Your task to perform on an android device: allow cookies in the chrome app Image 0: 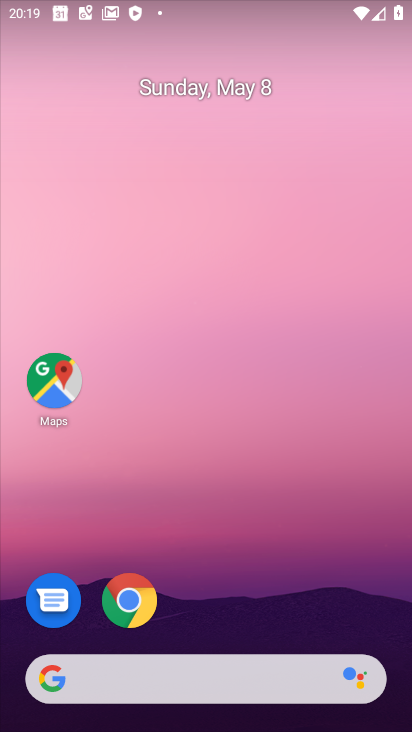
Step 0: drag from (296, 716) to (369, 239)
Your task to perform on an android device: allow cookies in the chrome app Image 1: 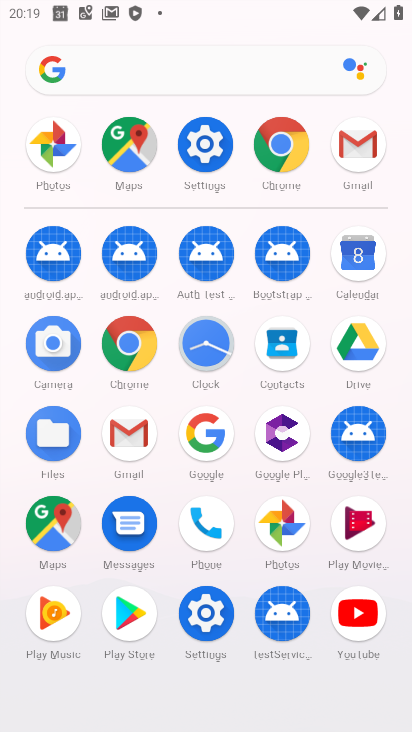
Step 1: click (282, 147)
Your task to perform on an android device: allow cookies in the chrome app Image 2: 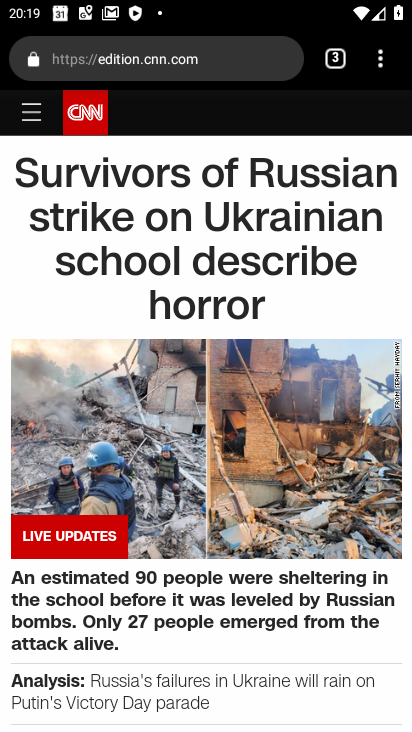
Step 2: click (364, 88)
Your task to perform on an android device: allow cookies in the chrome app Image 3: 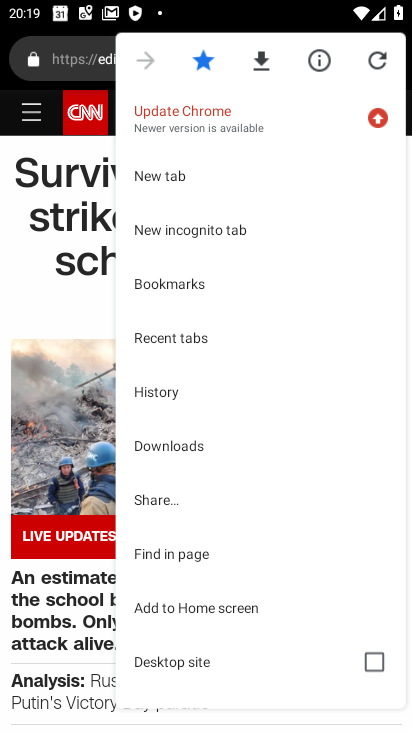
Step 3: drag from (187, 647) to (240, 526)
Your task to perform on an android device: allow cookies in the chrome app Image 4: 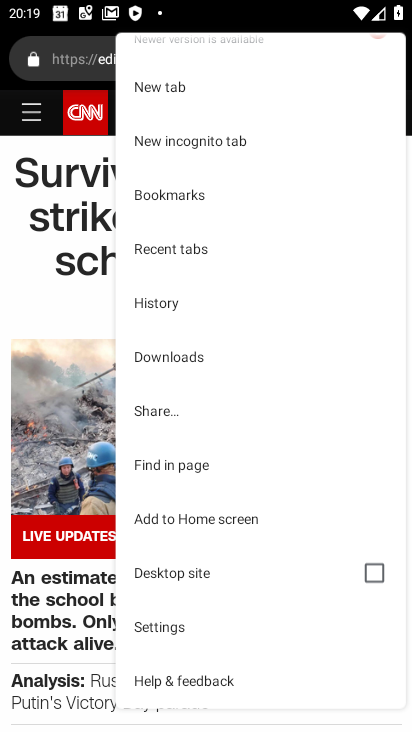
Step 4: click (187, 629)
Your task to perform on an android device: allow cookies in the chrome app Image 5: 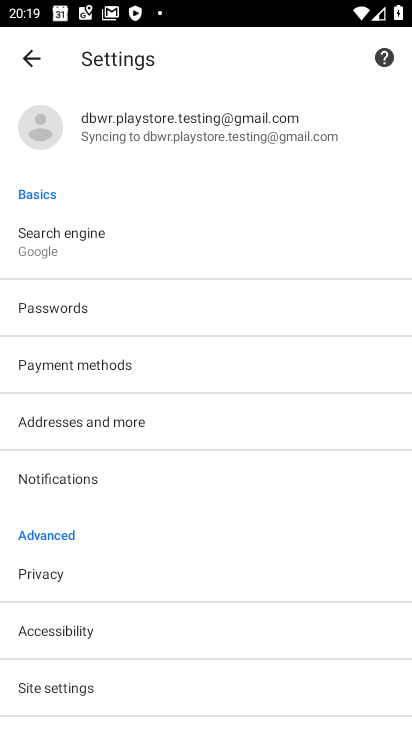
Step 5: drag from (126, 667) to (189, 550)
Your task to perform on an android device: allow cookies in the chrome app Image 6: 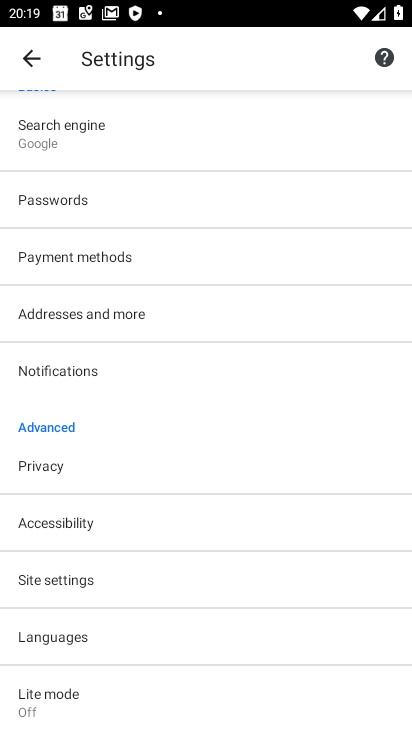
Step 6: click (109, 582)
Your task to perform on an android device: allow cookies in the chrome app Image 7: 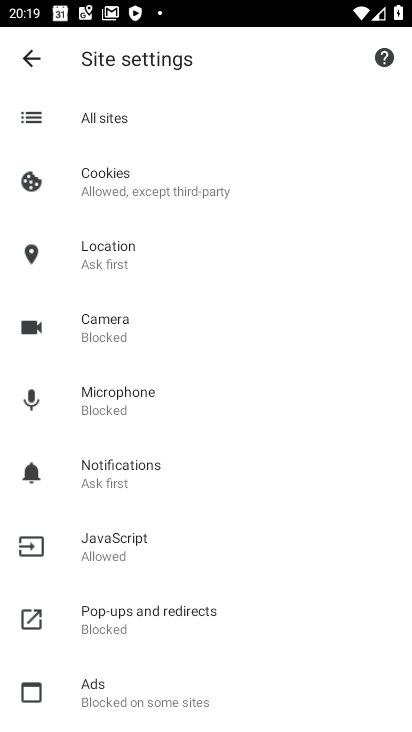
Step 7: click (152, 181)
Your task to perform on an android device: allow cookies in the chrome app Image 8: 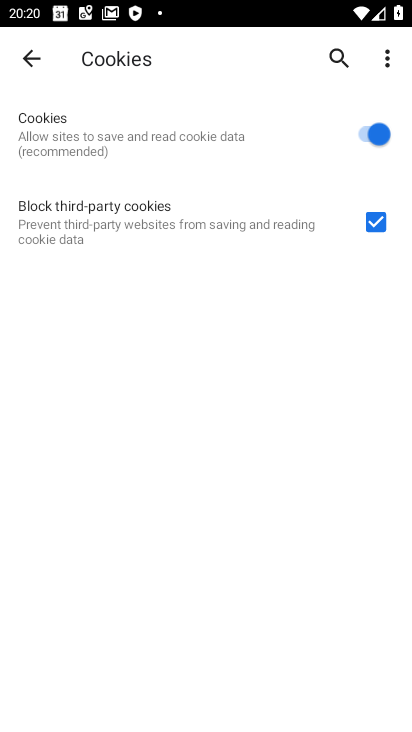
Step 8: click (81, 132)
Your task to perform on an android device: allow cookies in the chrome app Image 9: 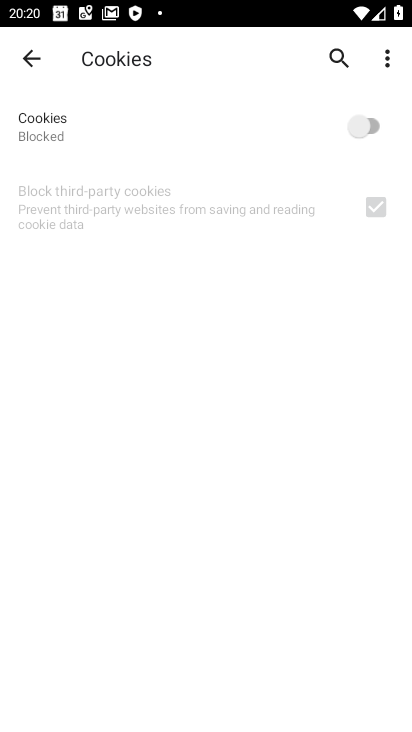
Step 9: click (81, 132)
Your task to perform on an android device: allow cookies in the chrome app Image 10: 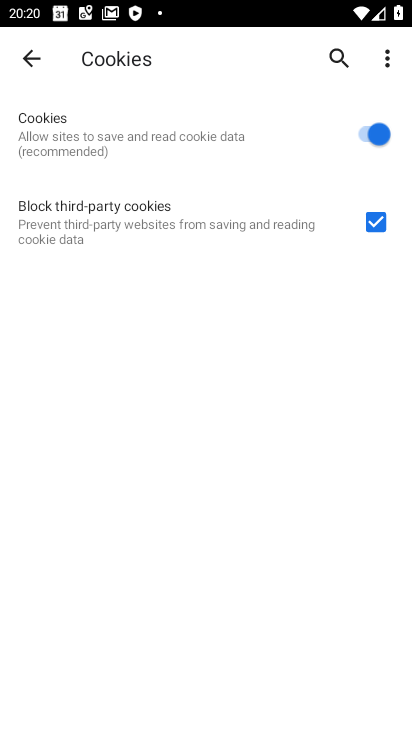
Step 10: task complete